Your task to perform on an android device: Open calendar and show me the third week of next month Image 0: 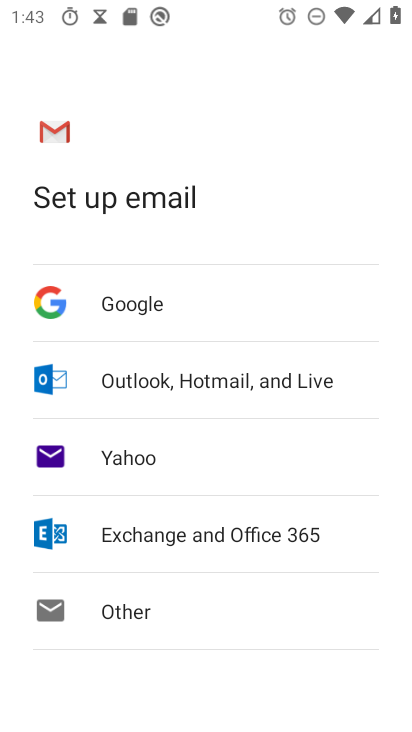
Step 0: press home button
Your task to perform on an android device: Open calendar and show me the third week of next month Image 1: 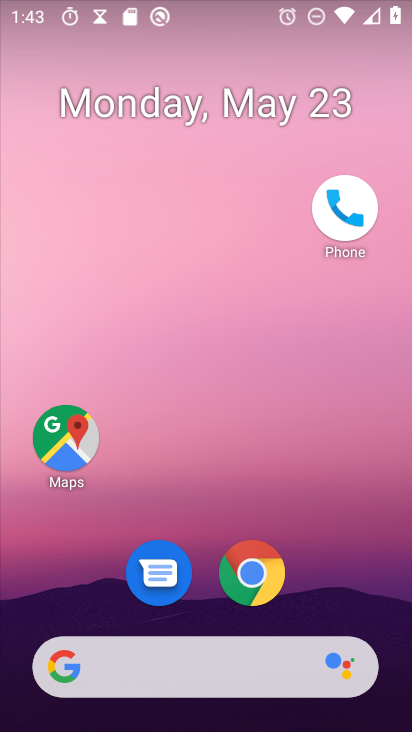
Step 1: drag from (233, 652) to (350, 65)
Your task to perform on an android device: Open calendar and show me the third week of next month Image 2: 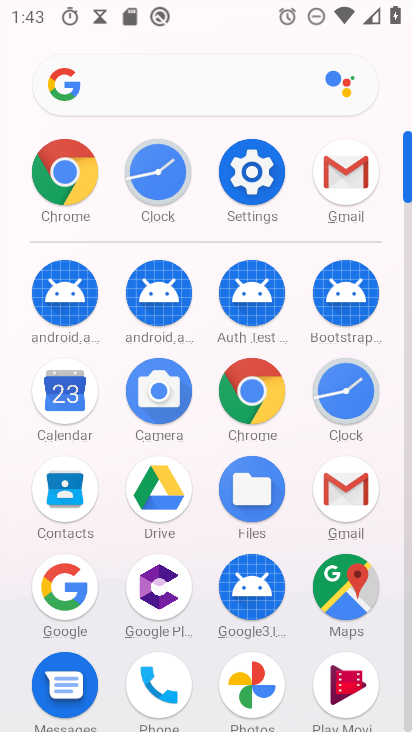
Step 2: click (82, 394)
Your task to perform on an android device: Open calendar and show me the third week of next month Image 3: 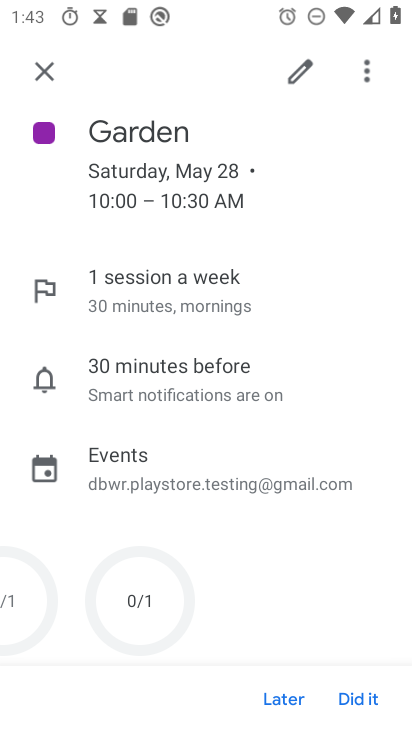
Step 3: click (40, 73)
Your task to perform on an android device: Open calendar and show me the third week of next month Image 4: 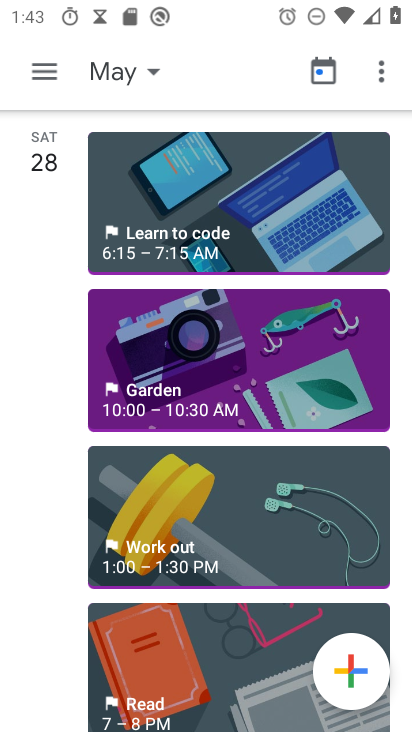
Step 4: click (124, 78)
Your task to perform on an android device: Open calendar and show me the third week of next month Image 5: 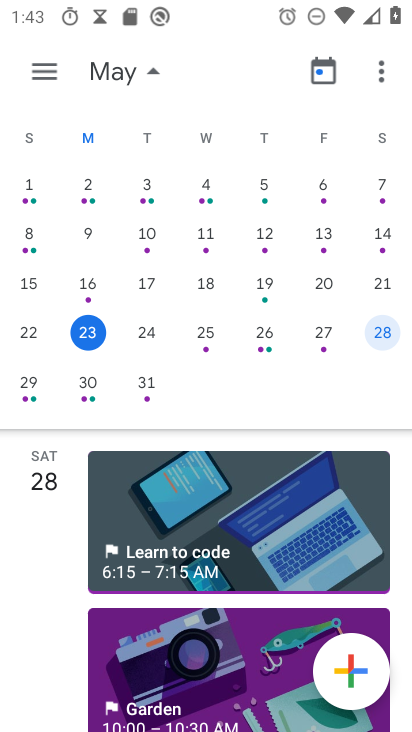
Step 5: drag from (369, 253) to (63, 266)
Your task to perform on an android device: Open calendar and show me the third week of next month Image 6: 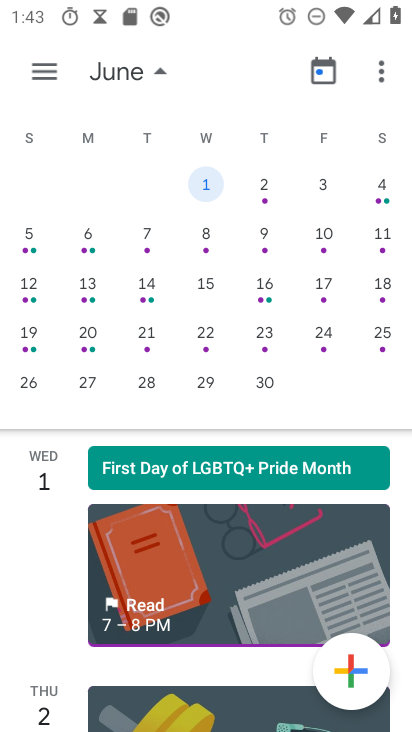
Step 6: click (32, 289)
Your task to perform on an android device: Open calendar and show me the third week of next month Image 7: 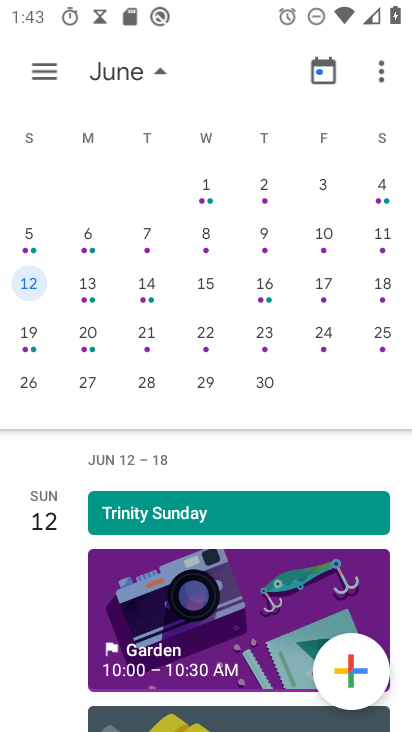
Step 7: click (46, 75)
Your task to perform on an android device: Open calendar and show me the third week of next month Image 8: 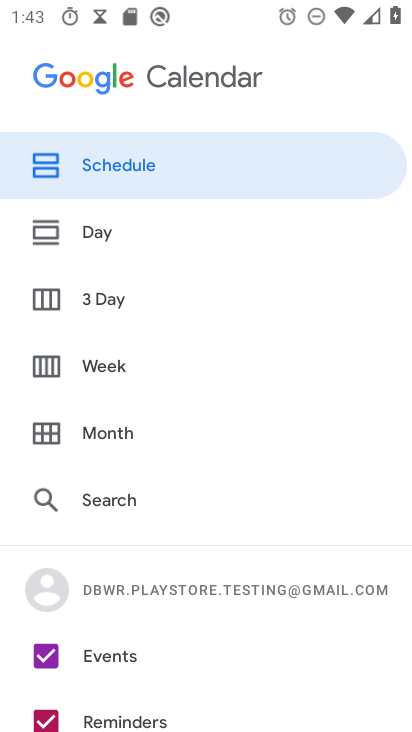
Step 8: click (104, 363)
Your task to perform on an android device: Open calendar and show me the third week of next month Image 9: 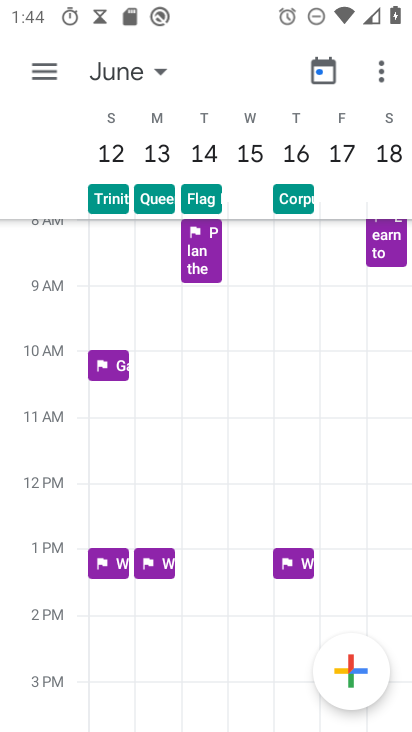
Step 9: task complete